Your task to perform on an android device: Open settings Image 0: 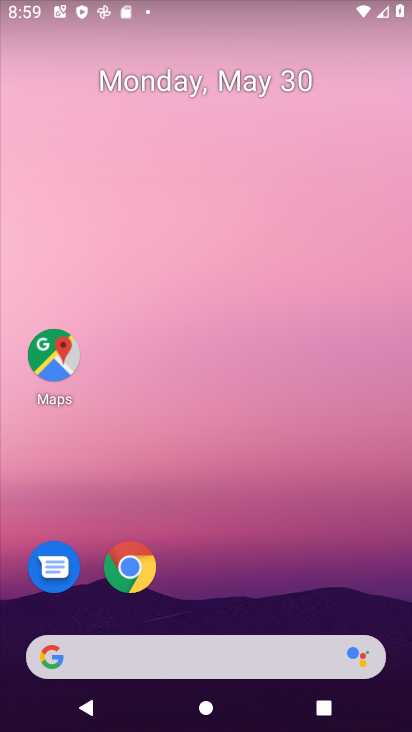
Step 0: drag from (338, 594) to (277, 159)
Your task to perform on an android device: Open settings Image 1: 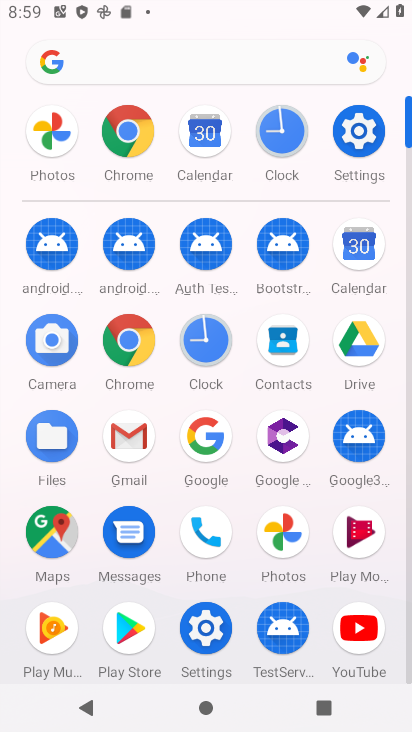
Step 1: click (355, 149)
Your task to perform on an android device: Open settings Image 2: 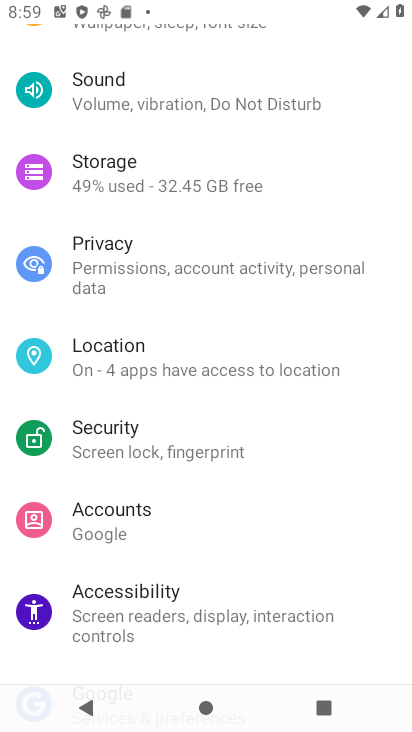
Step 2: task complete